Your task to perform on an android device: Go to location settings Image 0: 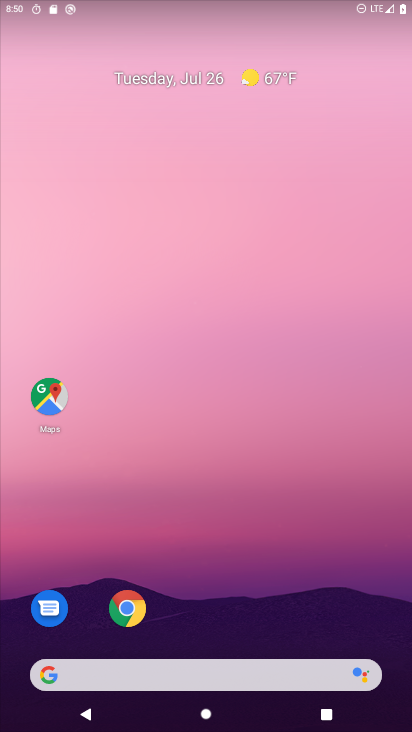
Step 0: drag from (261, 380) to (247, 6)
Your task to perform on an android device: Go to location settings Image 1: 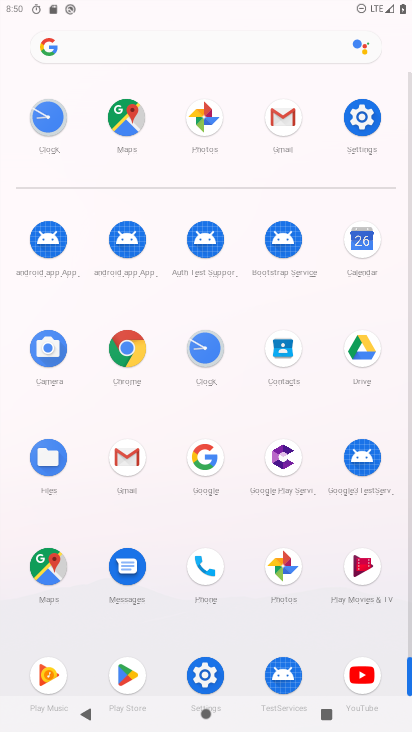
Step 1: click (367, 119)
Your task to perform on an android device: Go to location settings Image 2: 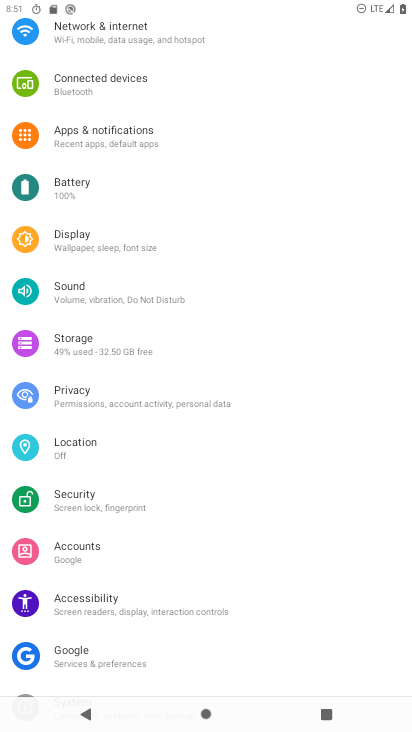
Step 2: click (87, 440)
Your task to perform on an android device: Go to location settings Image 3: 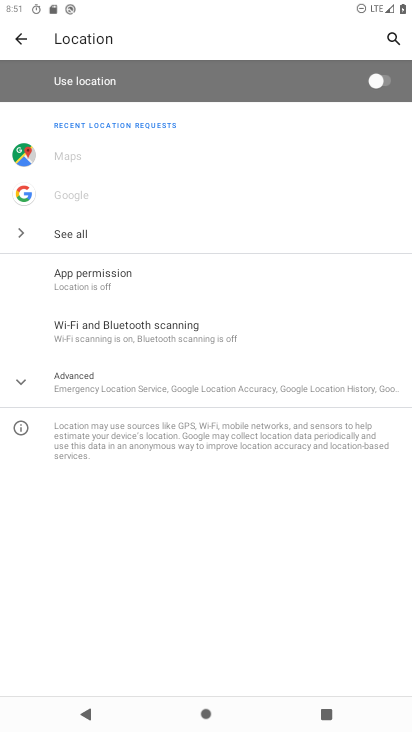
Step 3: task complete